Your task to perform on an android device: Open Amazon Image 0: 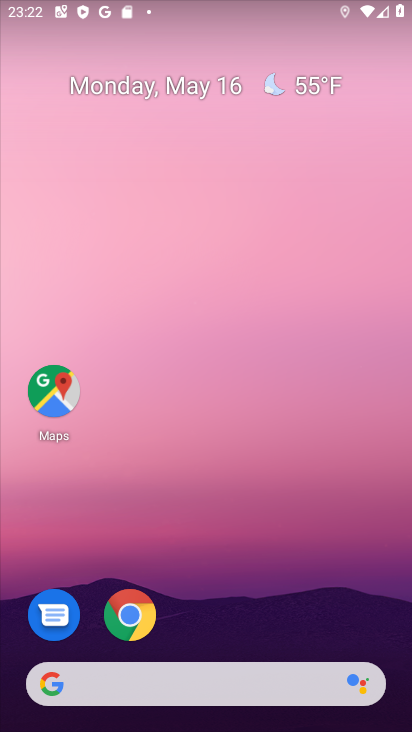
Step 0: click (131, 618)
Your task to perform on an android device: Open Amazon Image 1: 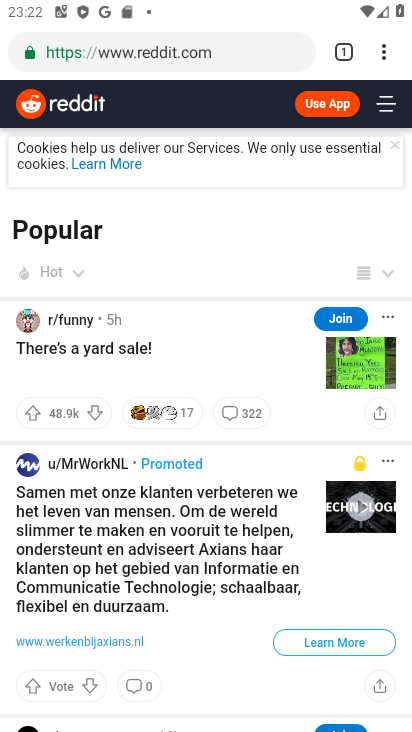
Step 1: click (345, 55)
Your task to perform on an android device: Open Amazon Image 2: 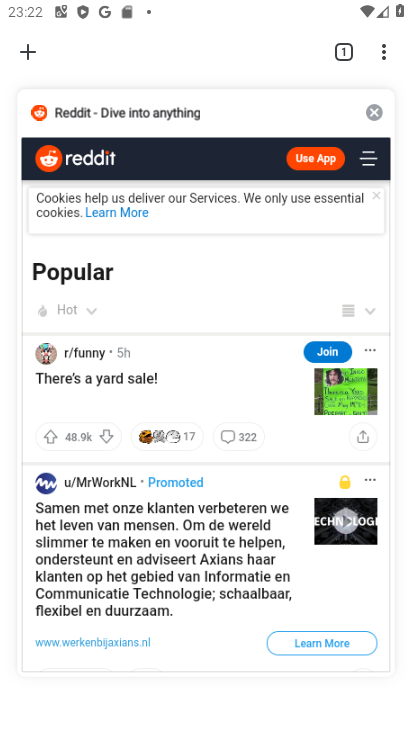
Step 2: click (30, 38)
Your task to perform on an android device: Open Amazon Image 3: 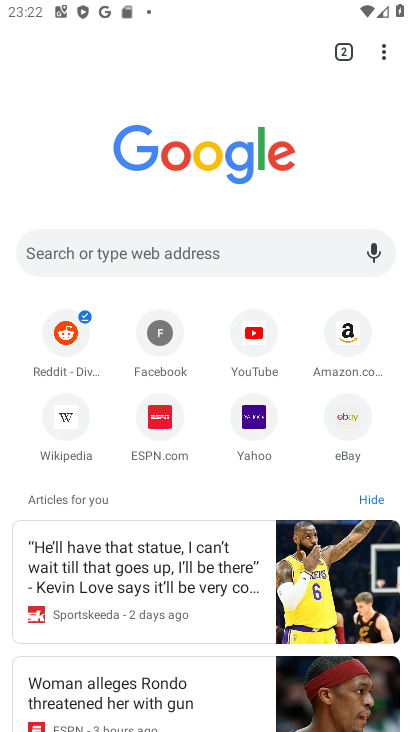
Step 3: click (336, 344)
Your task to perform on an android device: Open Amazon Image 4: 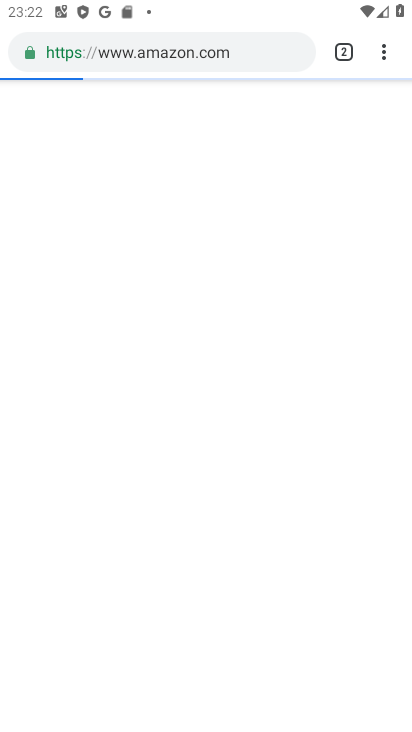
Step 4: task complete